Your task to perform on an android device: turn pop-ups on in chrome Image 0: 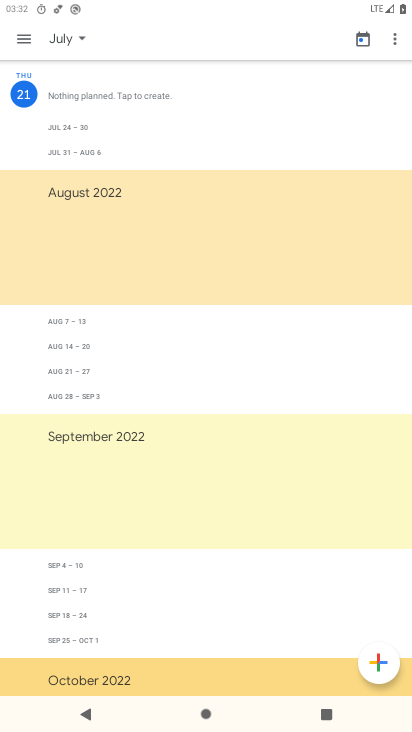
Step 0: press home button
Your task to perform on an android device: turn pop-ups on in chrome Image 1: 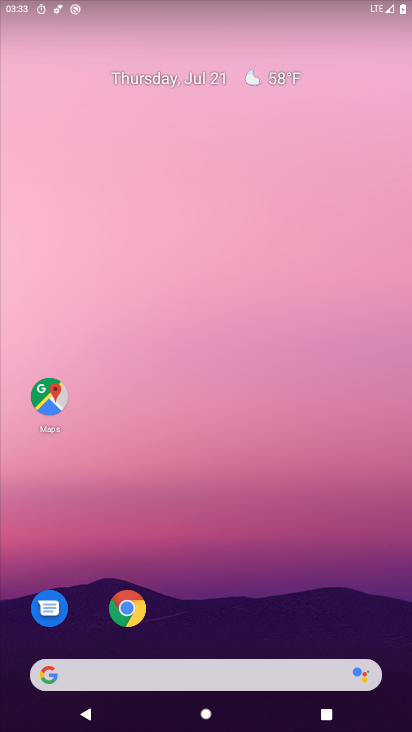
Step 1: click (123, 602)
Your task to perform on an android device: turn pop-ups on in chrome Image 2: 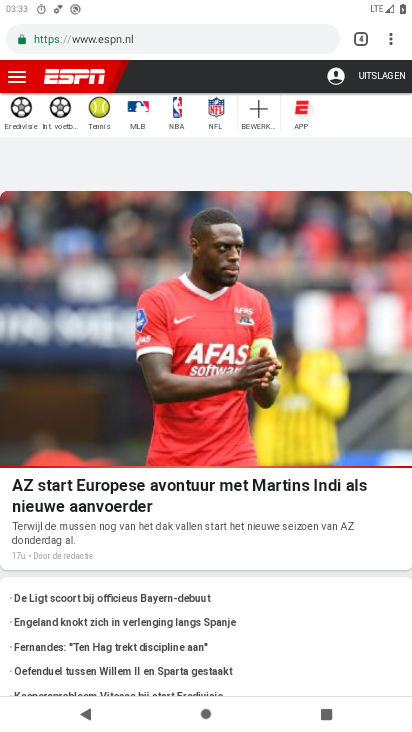
Step 2: click (390, 31)
Your task to perform on an android device: turn pop-ups on in chrome Image 3: 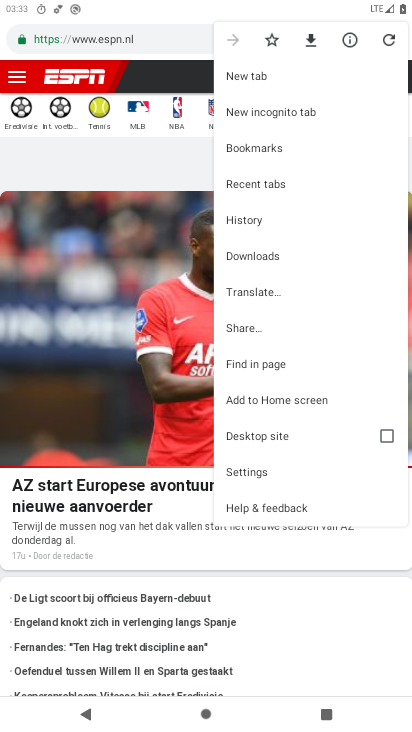
Step 3: click (272, 467)
Your task to perform on an android device: turn pop-ups on in chrome Image 4: 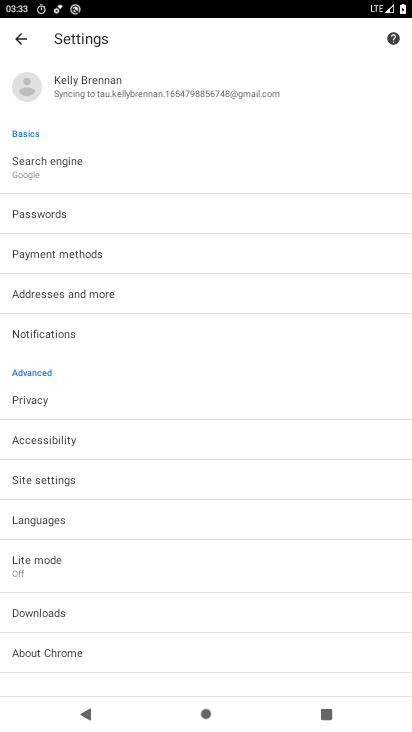
Step 4: click (129, 473)
Your task to perform on an android device: turn pop-ups on in chrome Image 5: 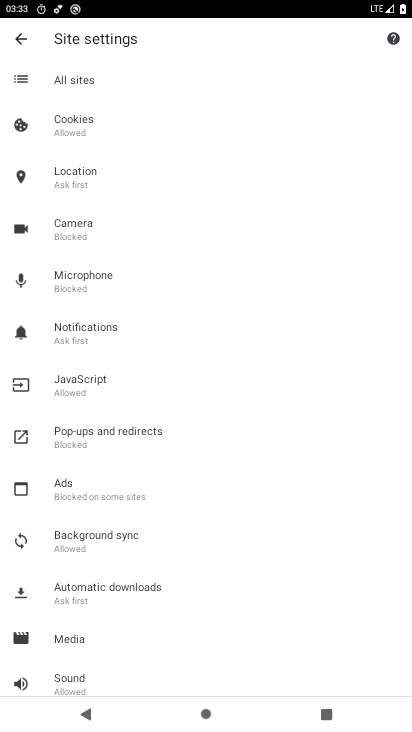
Step 5: click (114, 436)
Your task to perform on an android device: turn pop-ups on in chrome Image 6: 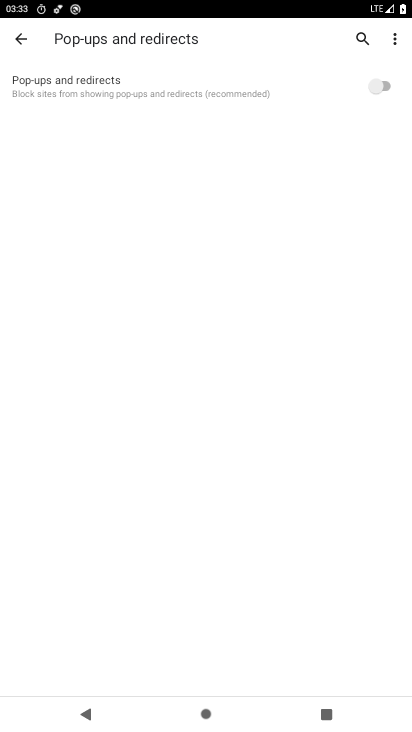
Step 6: click (388, 84)
Your task to perform on an android device: turn pop-ups on in chrome Image 7: 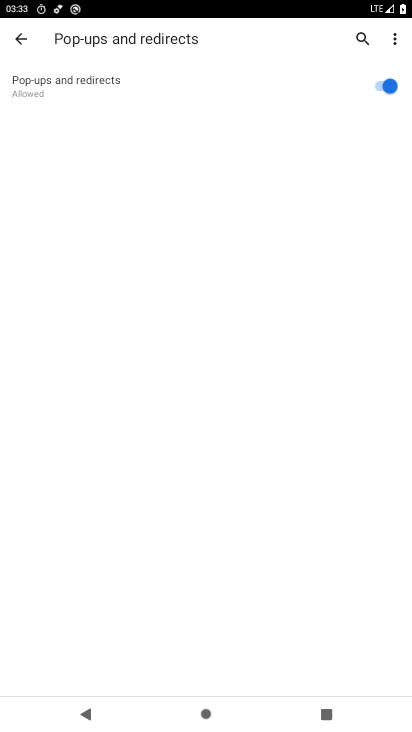
Step 7: task complete